Your task to perform on an android device: see sites visited before in the chrome app Image 0: 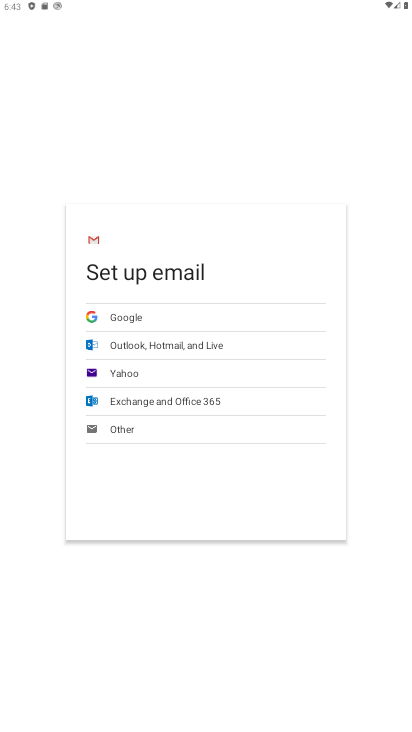
Step 0: press home button
Your task to perform on an android device: see sites visited before in the chrome app Image 1: 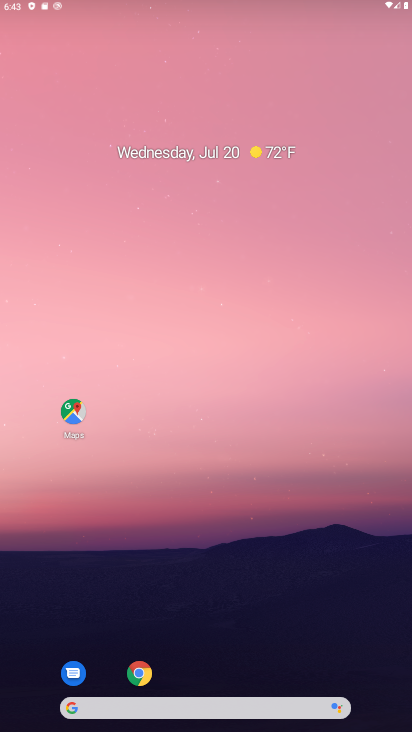
Step 1: drag from (347, 633) to (176, 13)
Your task to perform on an android device: see sites visited before in the chrome app Image 2: 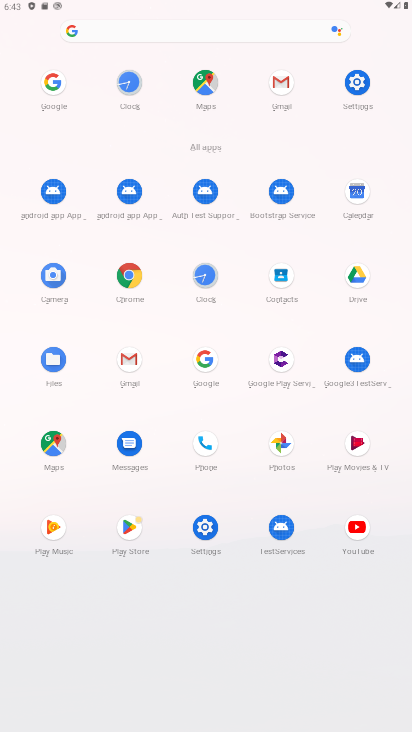
Step 2: click (127, 279)
Your task to perform on an android device: see sites visited before in the chrome app Image 3: 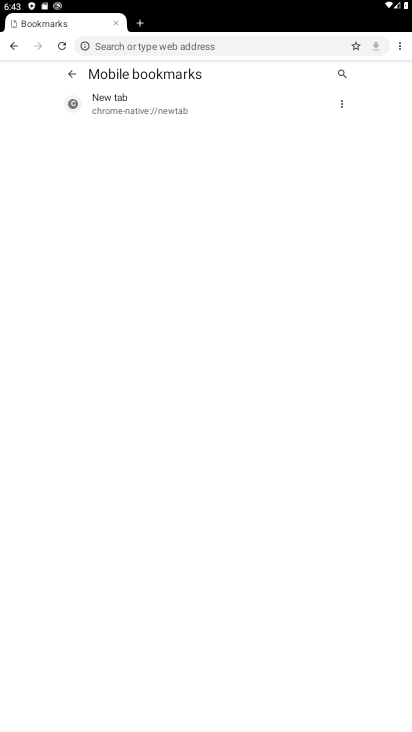
Step 3: press back button
Your task to perform on an android device: see sites visited before in the chrome app Image 4: 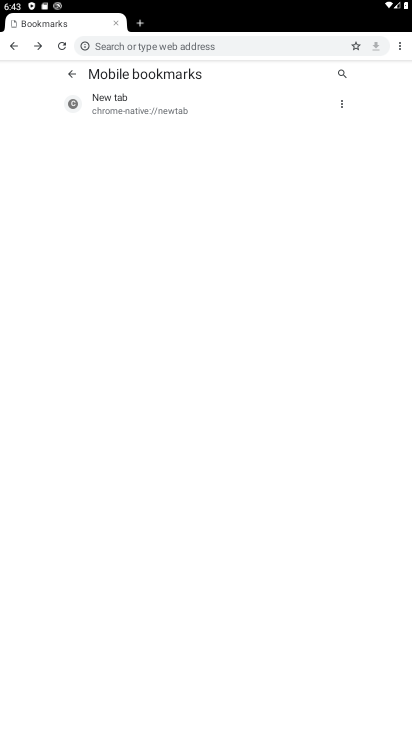
Step 4: click (396, 42)
Your task to perform on an android device: see sites visited before in the chrome app Image 5: 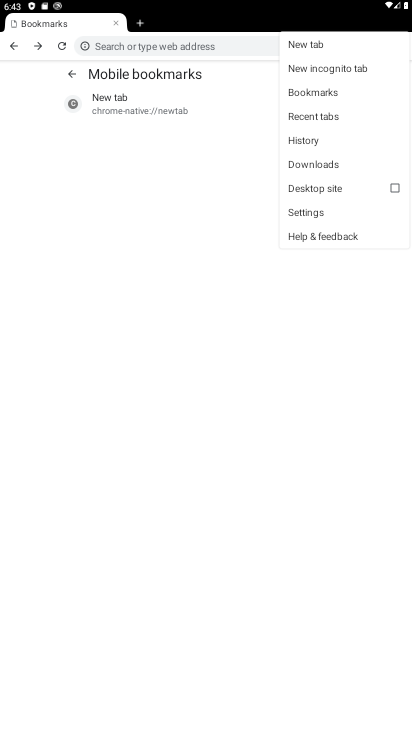
Step 5: click (301, 140)
Your task to perform on an android device: see sites visited before in the chrome app Image 6: 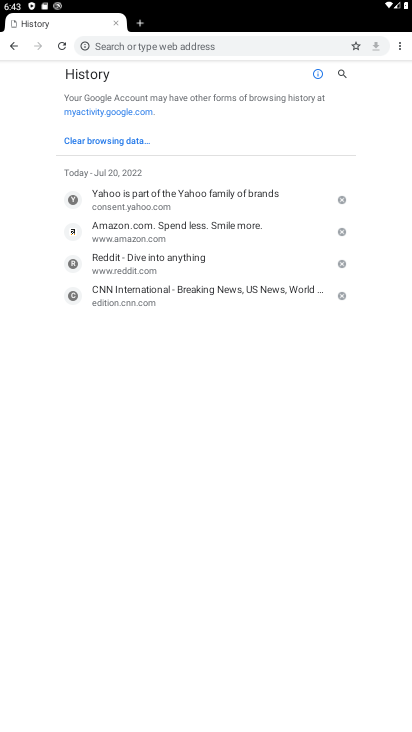
Step 6: click (86, 197)
Your task to perform on an android device: see sites visited before in the chrome app Image 7: 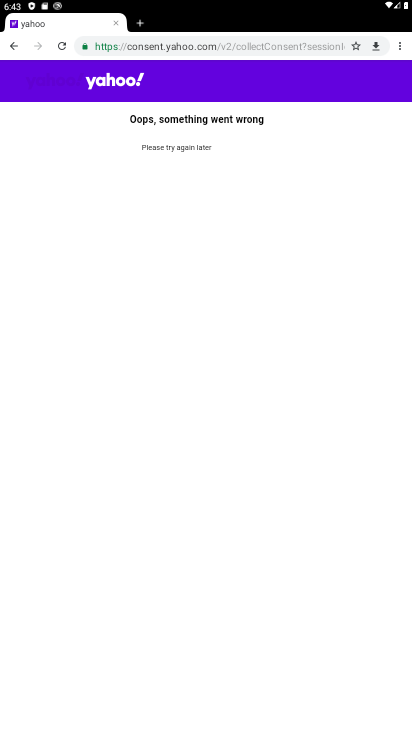
Step 7: task complete